Your task to perform on an android device: Open sound settings Image 0: 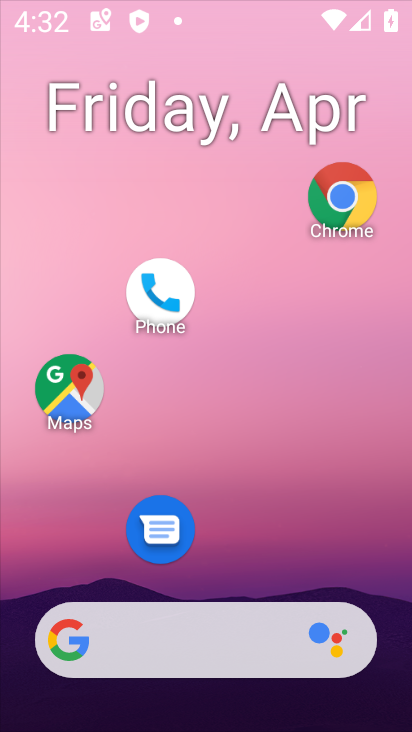
Step 0: drag from (238, 576) to (238, 74)
Your task to perform on an android device: Open sound settings Image 1: 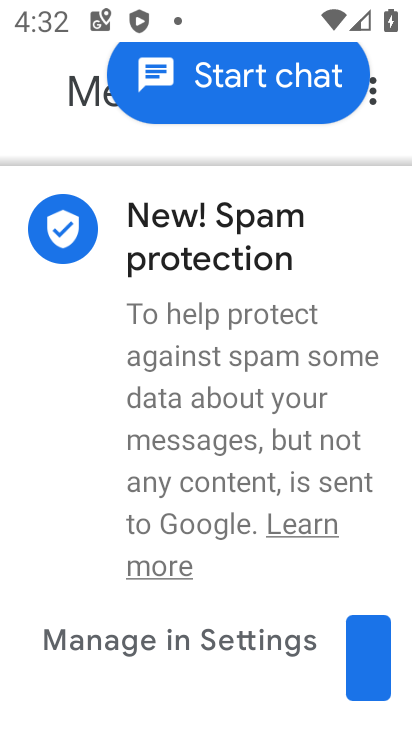
Step 1: press home button
Your task to perform on an android device: Open sound settings Image 2: 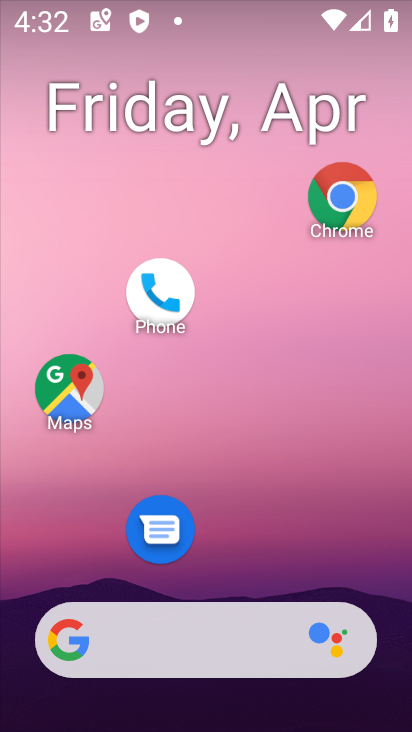
Step 2: drag from (236, 589) to (232, 49)
Your task to perform on an android device: Open sound settings Image 3: 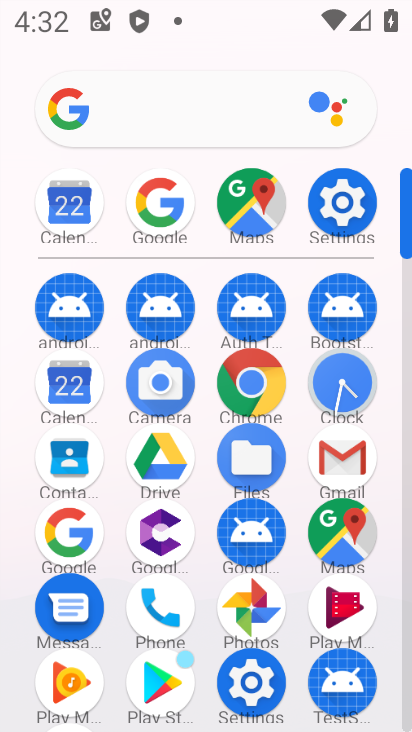
Step 3: click (247, 678)
Your task to perform on an android device: Open sound settings Image 4: 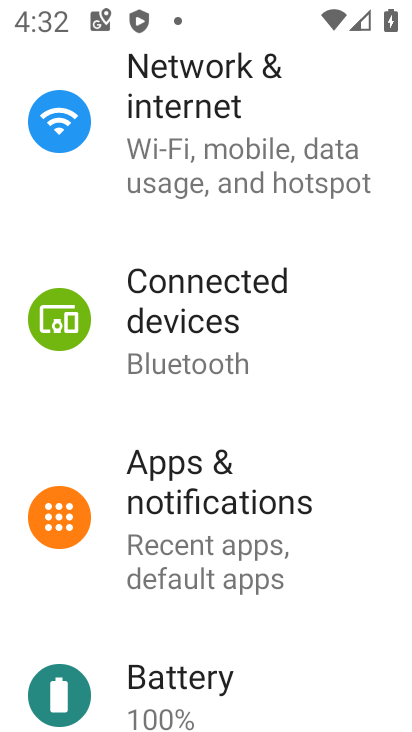
Step 4: drag from (217, 632) to (241, 125)
Your task to perform on an android device: Open sound settings Image 5: 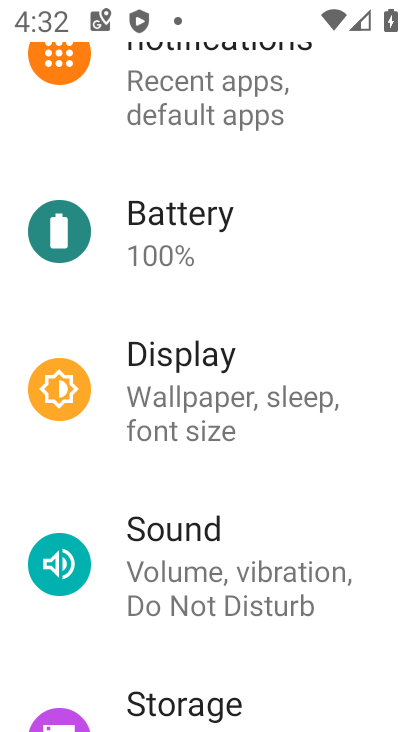
Step 5: click (237, 539)
Your task to perform on an android device: Open sound settings Image 6: 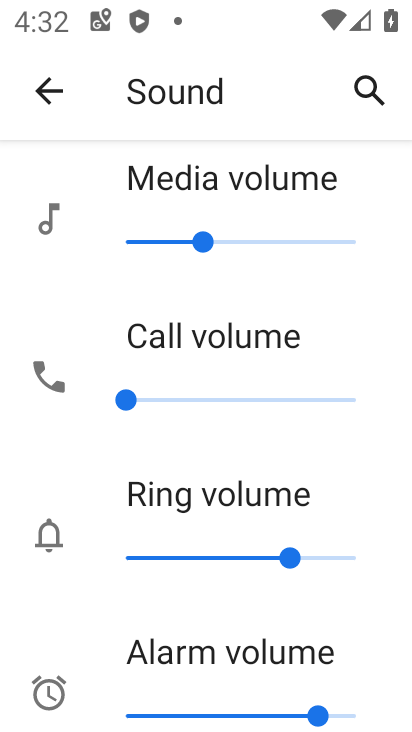
Step 6: drag from (111, 677) to (82, 164)
Your task to perform on an android device: Open sound settings Image 7: 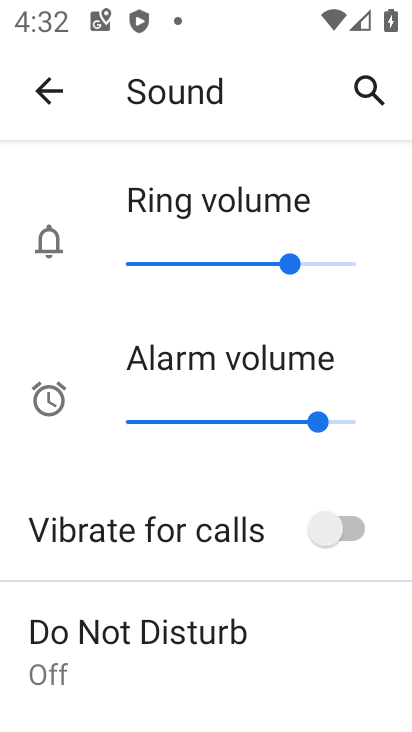
Step 7: drag from (166, 672) to (227, 203)
Your task to perform on an android device: Open sound settings Image 8: 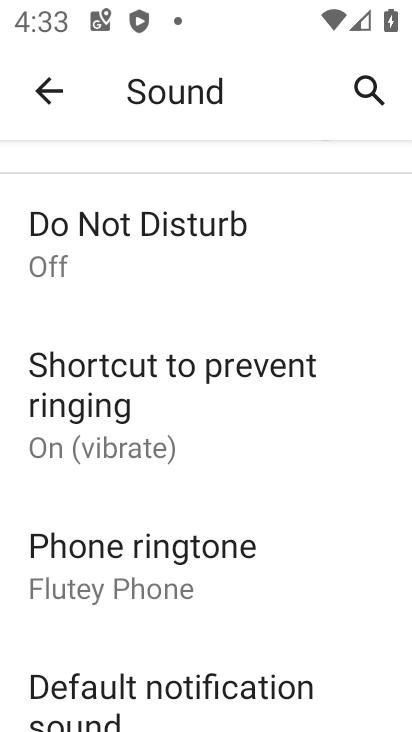
Step 8: drag from (164, 624) to (213, 160)
Your task to perform on an android device: Open sound settings Image 9: 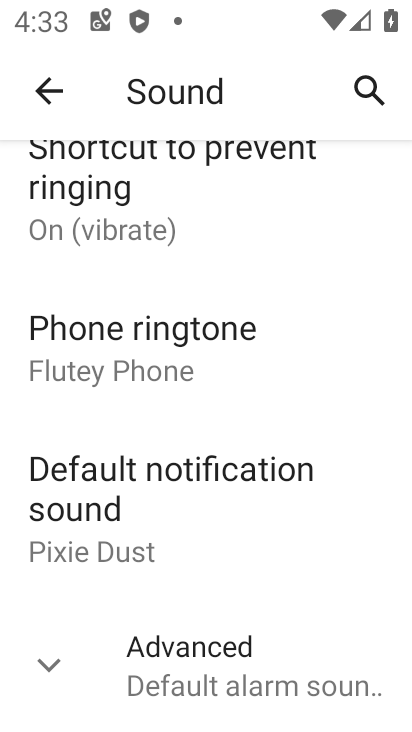
Step 9: click (46, 656)
Your task to perform on an android device: Open sound settings Image 10: 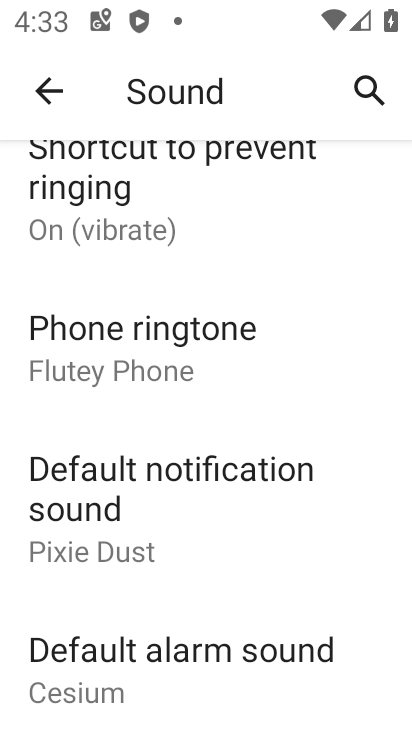
Step 10: task complete